Your task to perform on an android device: Show me popular games on the Play Store Image 0: 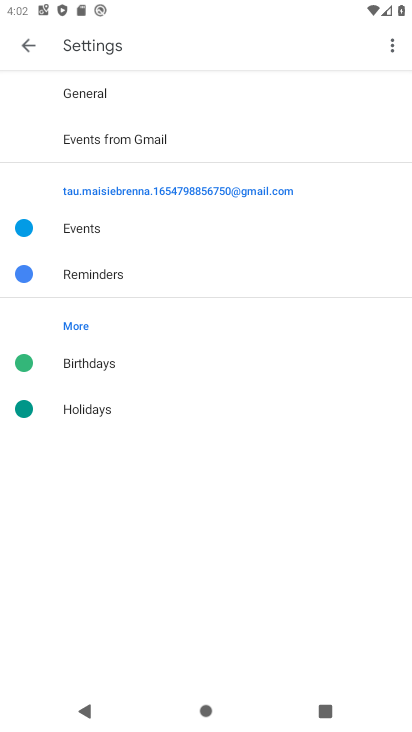
Step 0: press home button
Your task to perform on an android device: Show me popular games on the Play Store Image 1: 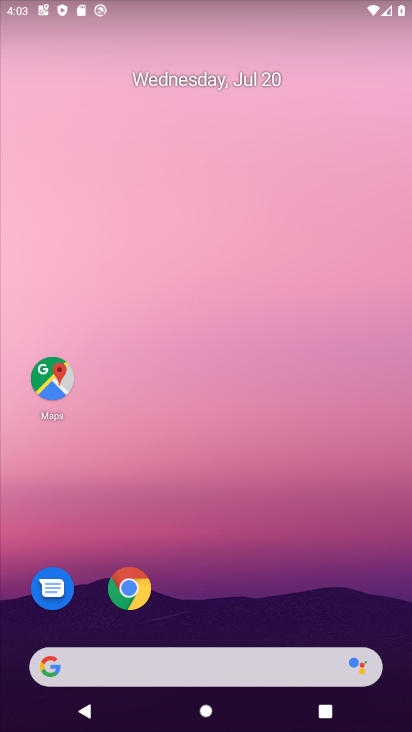
Step 1: drag from (263, 538) to (214, 54)
Your task to perform on an android device: Show me popular games on the Play Store Image 2: 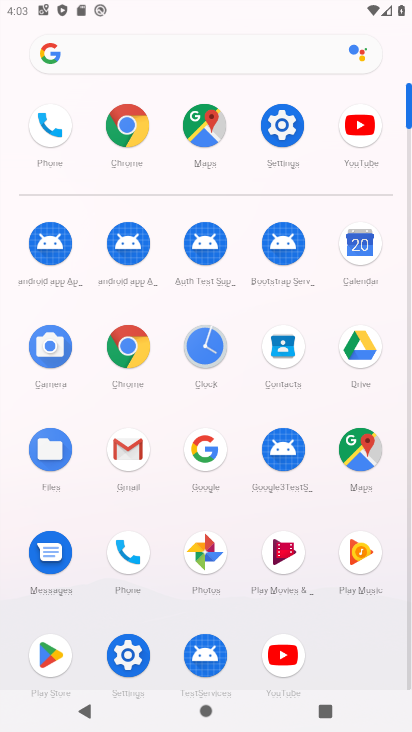
Step 2: click (52, 646)
Your task to perform on an android device: Show me popular games on the Play Store Image 3: 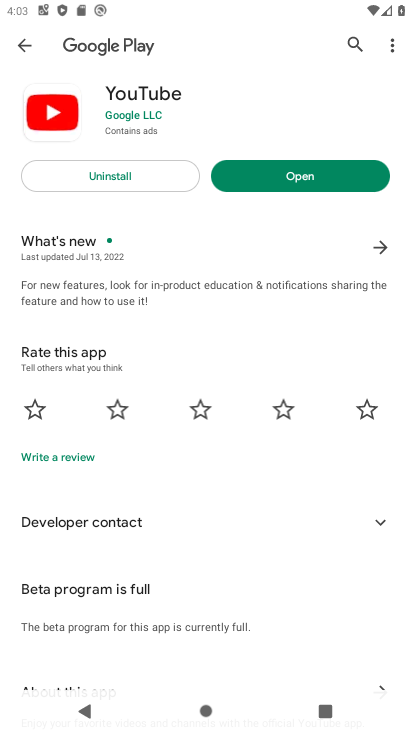
Step 3: click (21, 44)
Your task to perform on an android device: Show me popular games on the Play Store Image 4: 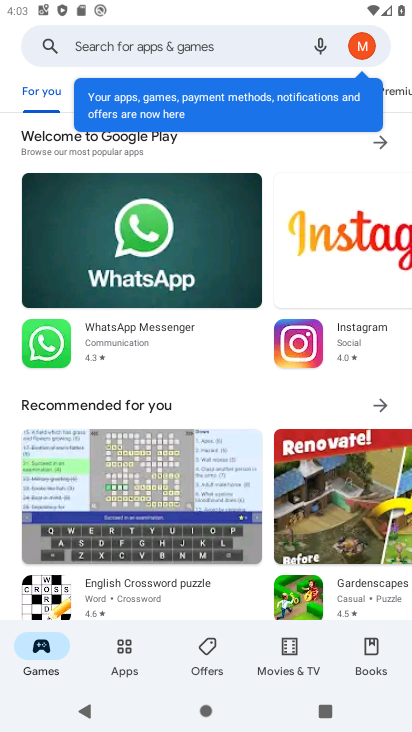
Step 4: task complete